Your task to perform on an android device: Turn off the flashlight Image 0: 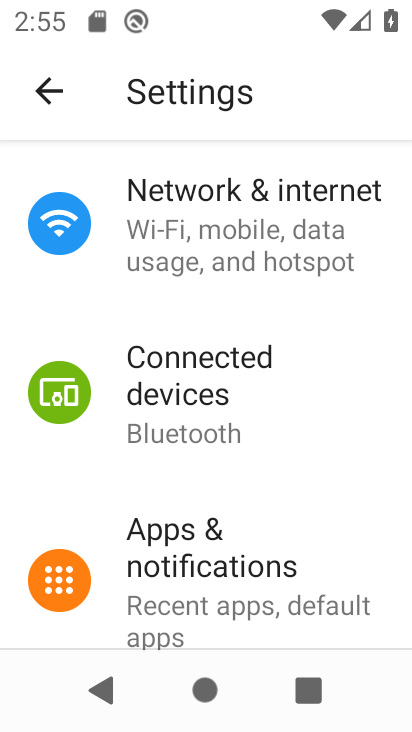
Step 0: press home button
Your task to perform on an android device: Turn off the flashlight Image 1: 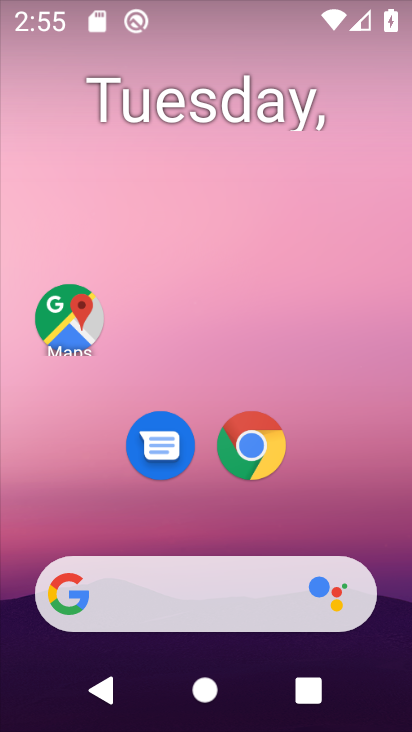
Step 1: task complete